Your task to perform on an android device: Show me popular videos on Youtube Image 0: 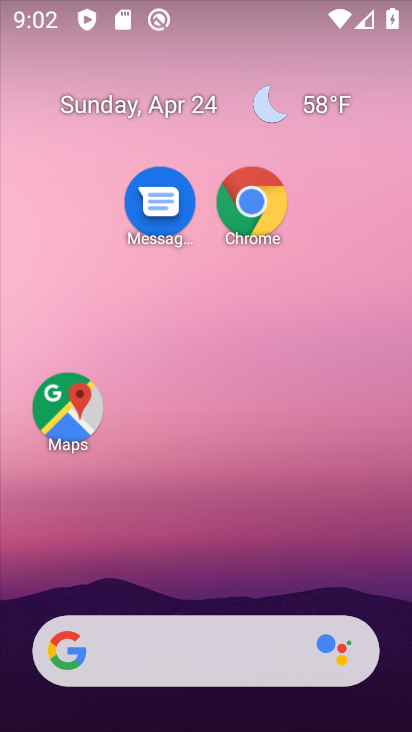
Step 0: drag from (220, 725) to (132, 30)
Your task to perform on an android device: Show me popular videos on Youtube Image 1: 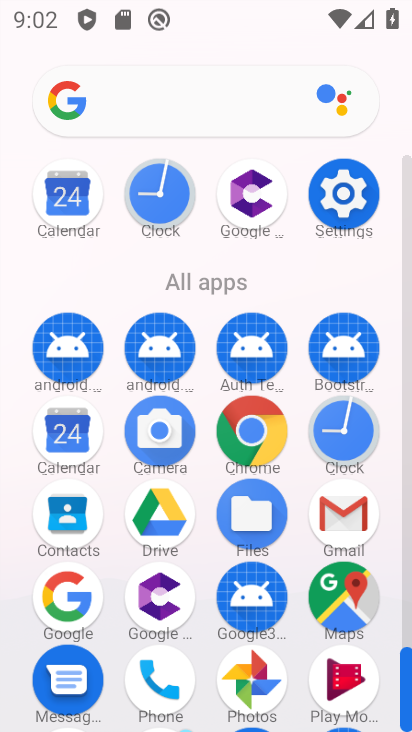
Step 1: drag from (206, 676) to (151, 189)
Your task to perform on an android device: Show me popular videos on Youtube Image 2: 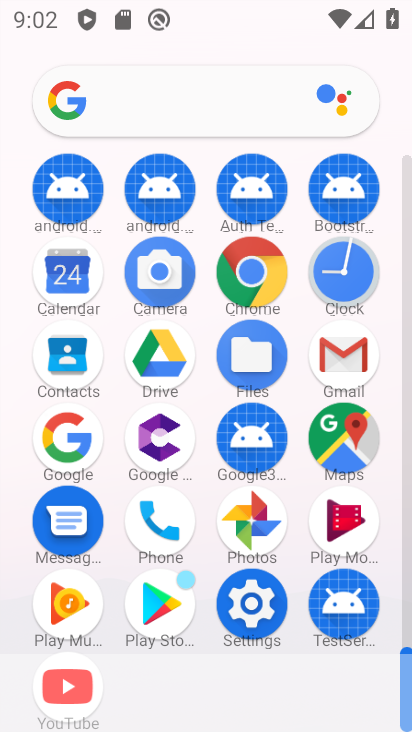
Step 2: click (62, 687)
Your task to perform on an android device: Show me popular videos on Youtube Image 3: 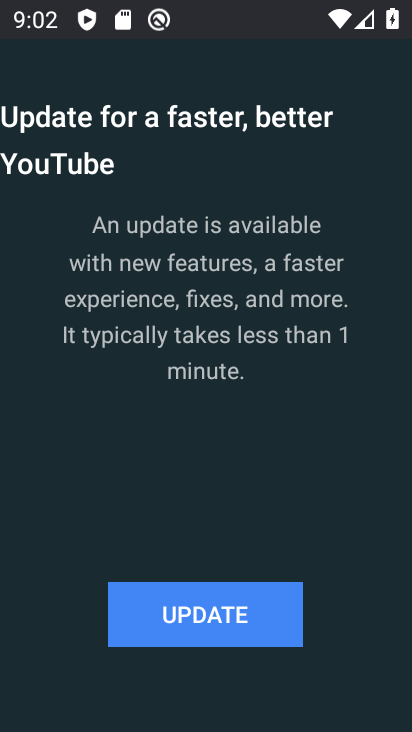
Step 3: click (233, 613)
Your task to perform on an android device: Show me popular videos on Youtube Image 4: 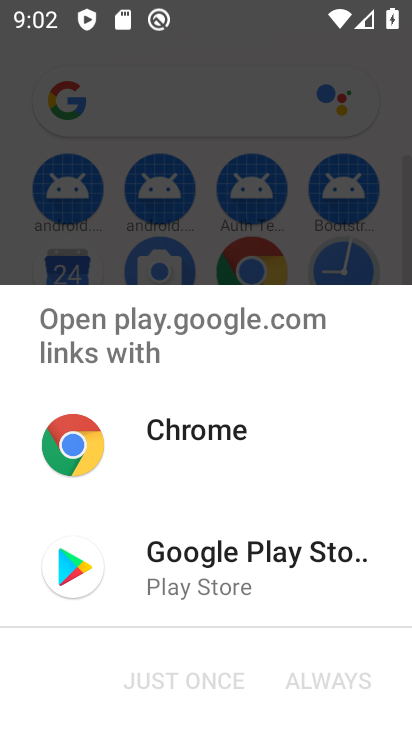
Step 4: click (187, 565)
Your task to perform on an android device: Show me popular videos on Youtube Image 5: 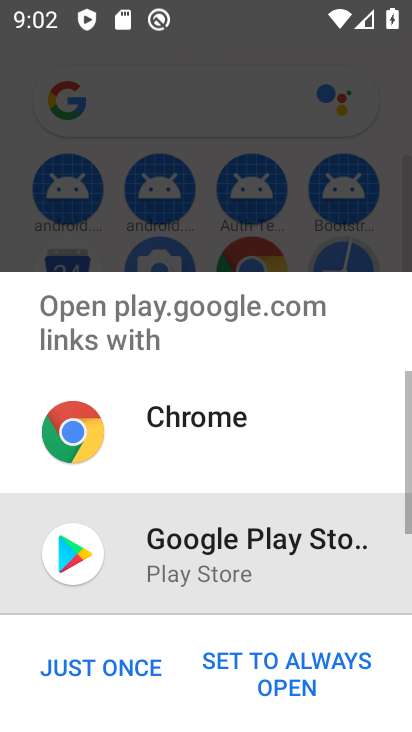
Step 5: click (139, 667)
Your task to perform on an android device: Show me popular videos on Youtube Image 6: 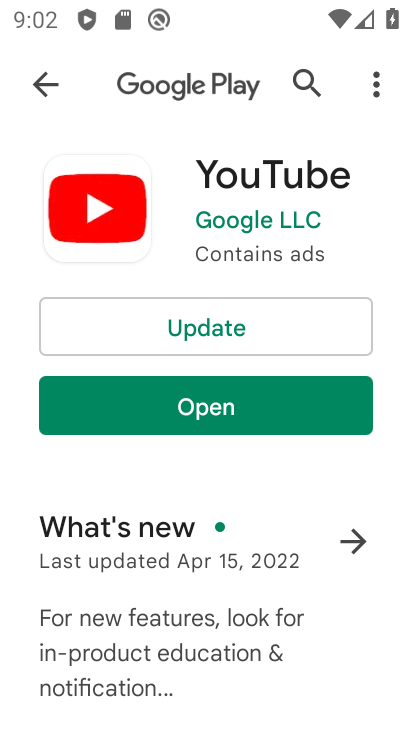
Step 6: click (196, 403)
Your task to perform on an android device: Show me popular videos on Youtube Image 7: 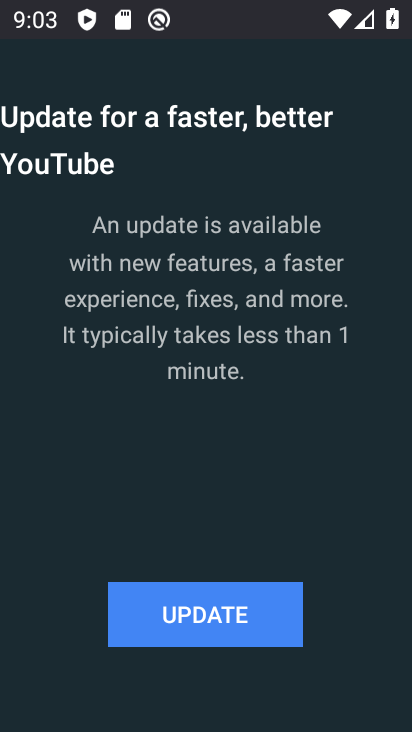
Step 7: task complete